Your task to perform on an android device: set default search engine in the chrome app Image 0: 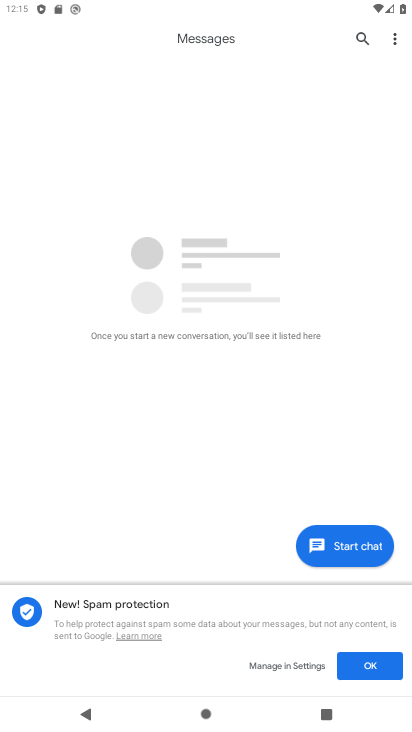
Step 0: press home button
Your task to perform on an android device: set default search engine in the chrome app Image 1: 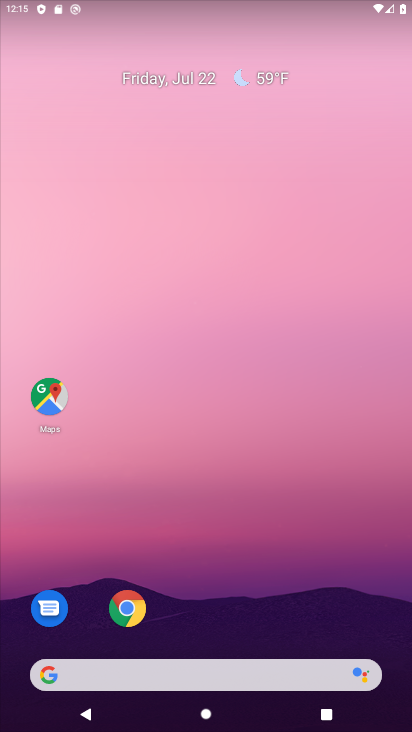
Step 1: drag from (215, 635) to (223, 306)
Your task to perform on an android device: set default search engine in the chrome app Image 2: 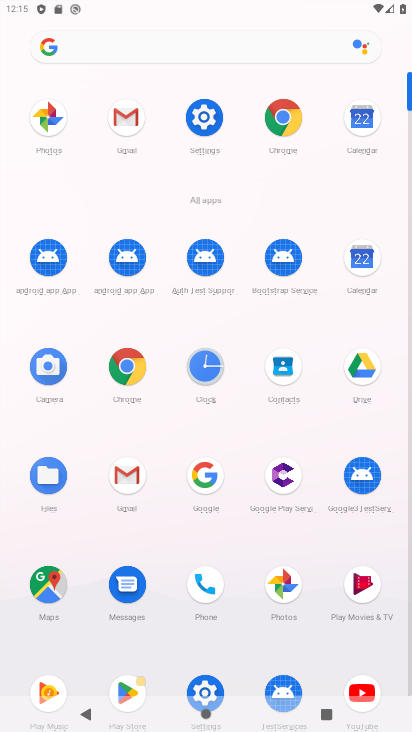
Step 2: click (130, 361)
Your task to perform on an android device: set default search engine in the chrome app Image 3: 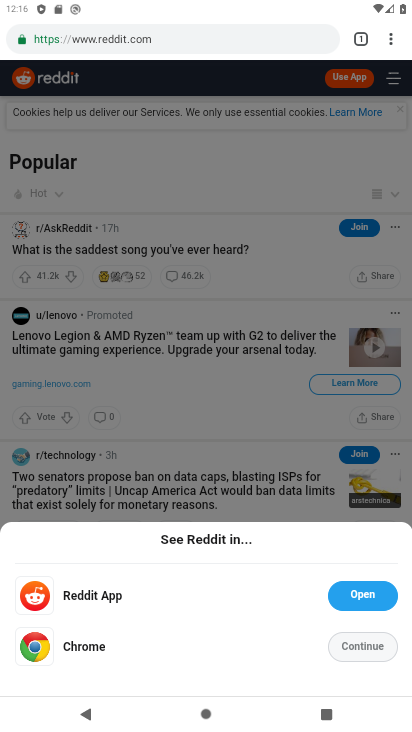
Step 3: click (396, 45)
Your task to perform on an android device: set default search engine in the chrome app Image 4: 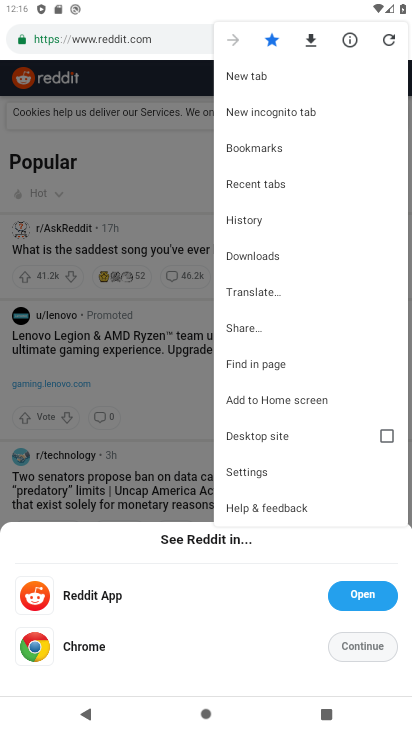
Step 4: click (259, 474)
Your task to perform on an android device: set default search engine in the chrome app Image 5: 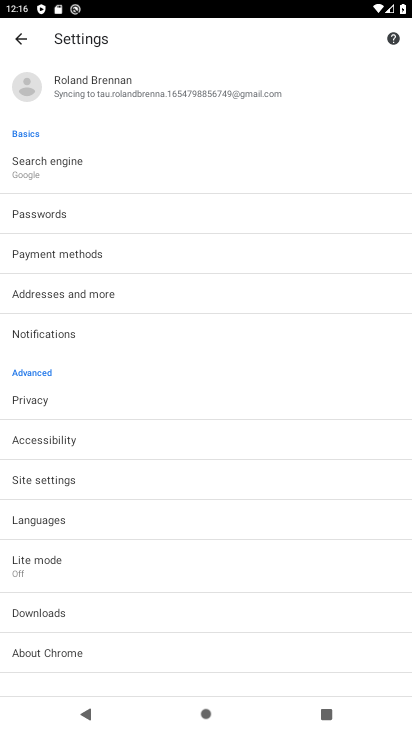
Step 5: click (75, 167)
Your task to perform on an android device: set default search engine in the chrome app Image 6: 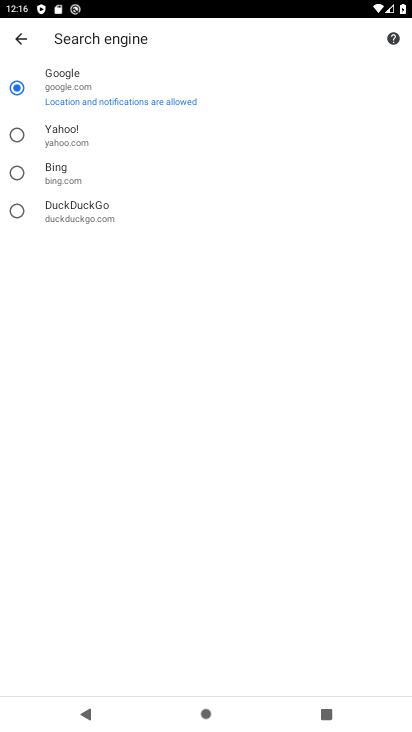
Step 6: click (58, 99)
Your task to perform on an android device: set default search engine in the chrome app Image 7: 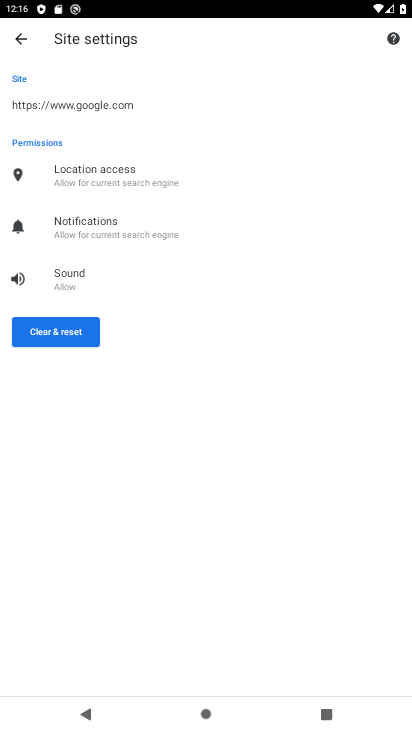
Step 7: click (67, 331)
Your task to perform on an android device: set default search engine in the chrome app Image 8: 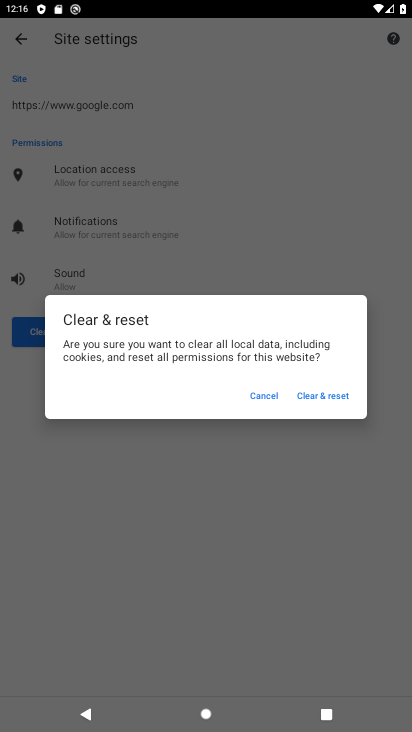
Step 8: click (334, 385)
Your task to perform on an android device: set default search engine in the chrome app Image 9: 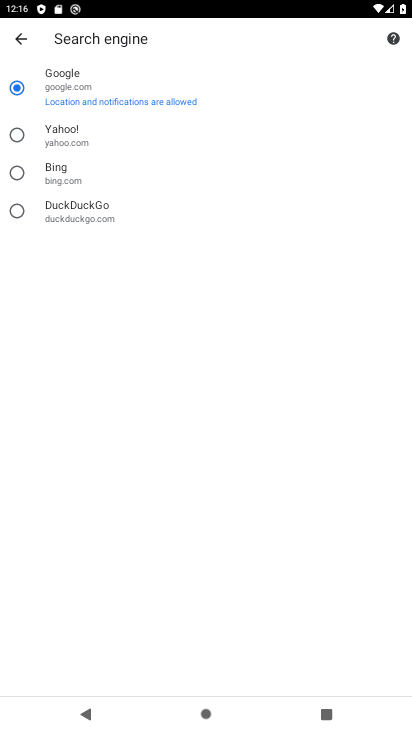
Step 9: task complete